Your task to perform on an android device: open a bookmark in the chrome app Image 0: 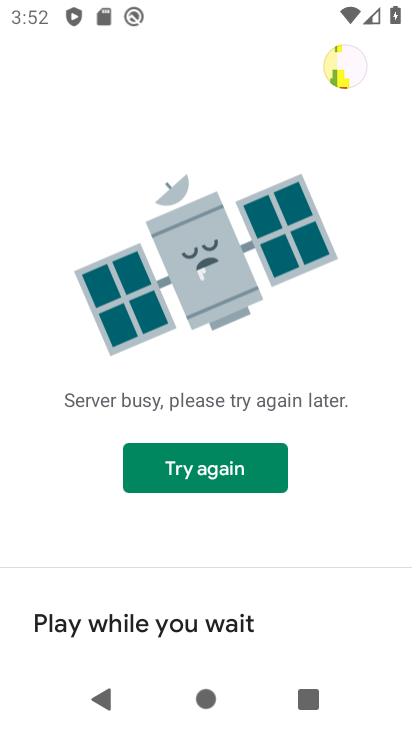
Step 0: press back button
Your task to perform on an android device: open a bookmark in the chrome app Image 1: 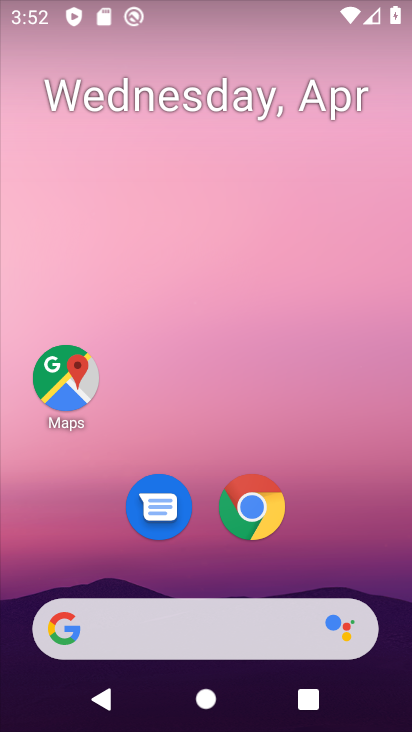
Step 1: click (263, 536)
Your task to perform on an android device: open a bookmark in the chrome app Image 2: 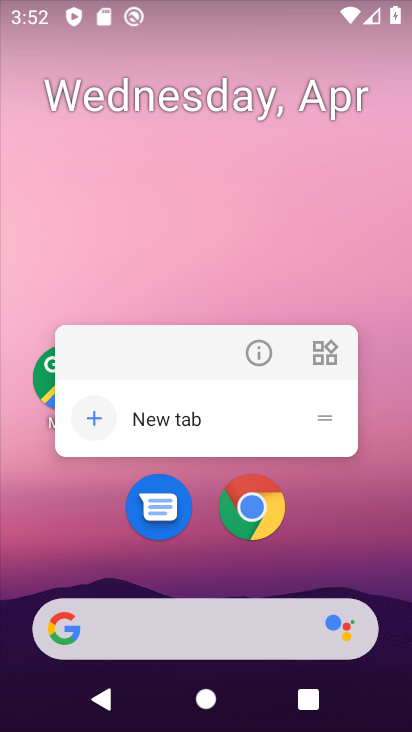
Step 2: click (268, 498)
Your task to perform on an android device: open a bookmark in the chrome app Image 3: 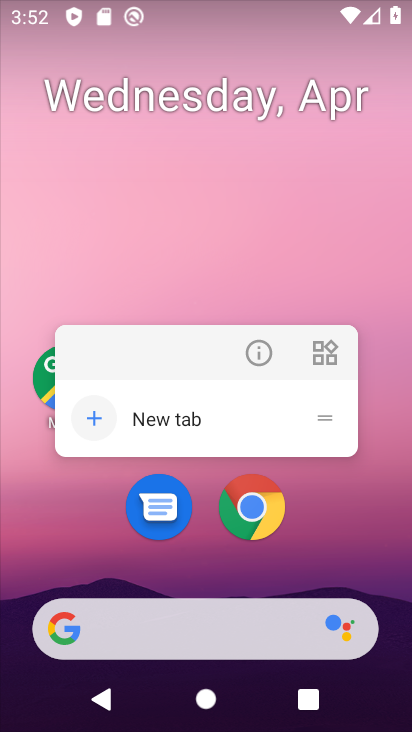
Step 3: click (251, 511)
Your task to perform on an android device: open a bookmark in the chrome app Image 4: 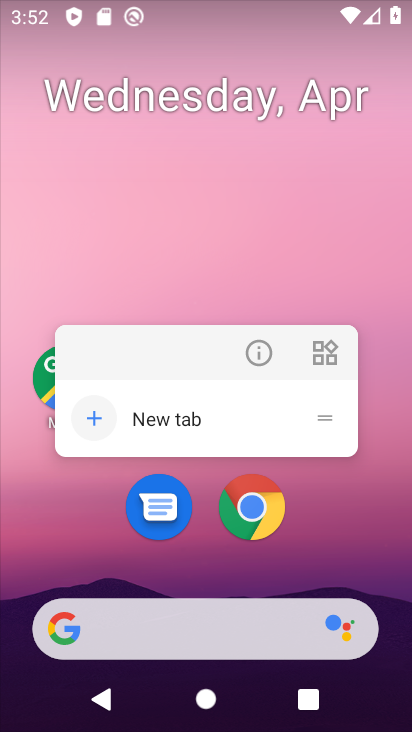
Step 4: click (252, 510)
Your task to perform on an android device: open a bookmark in the chrome app Image 5: 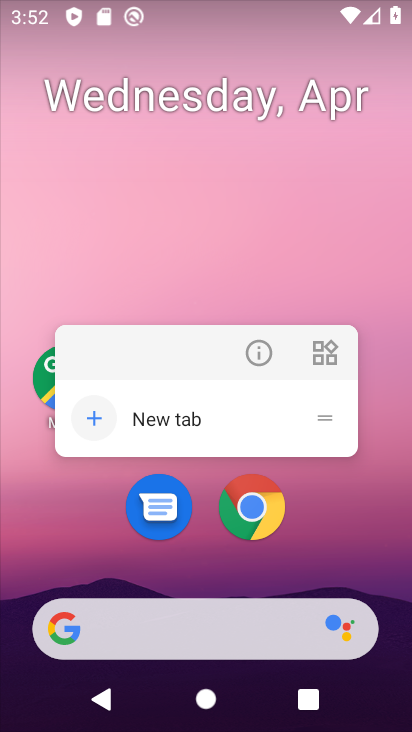
Step 5: click (252, 510)
Your task to perform on an android device: open a bookmark in the chrome app Image 6: 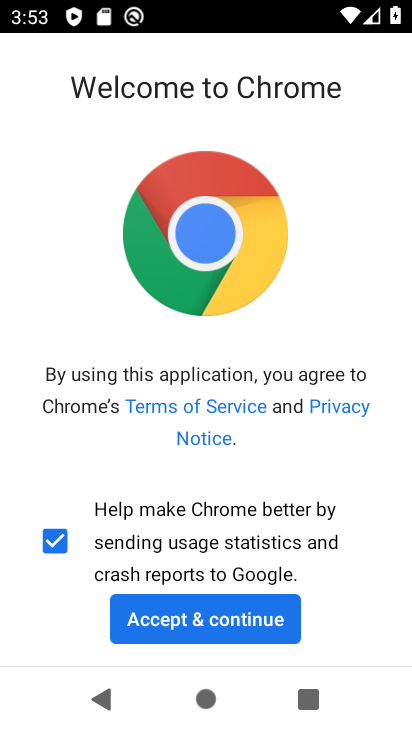
Step 6: click (218, 631)
Your task to perform on an android device: open a bookmark in the chrome app Image 7: 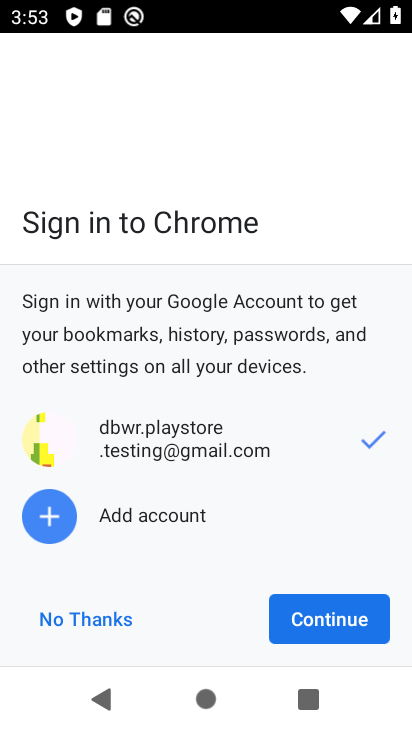
Step 7: click (316, 615)
Your task to perform on an android device: open a bookmark in the chrome app Image 8: 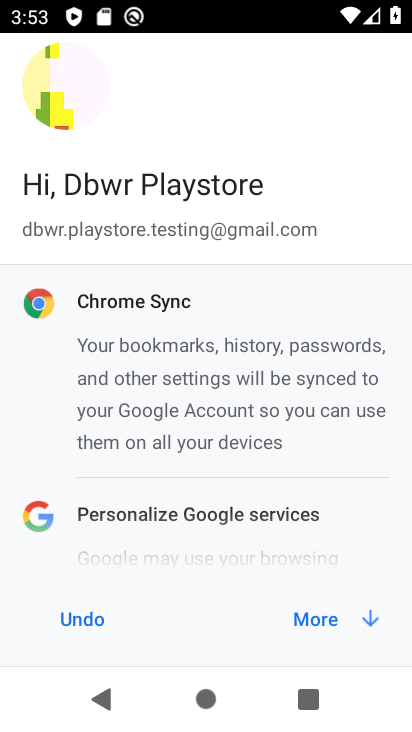
Step 8: click (356, 619)
Your task to perform on an android device: open a bookmark in the chrome app Image 9: 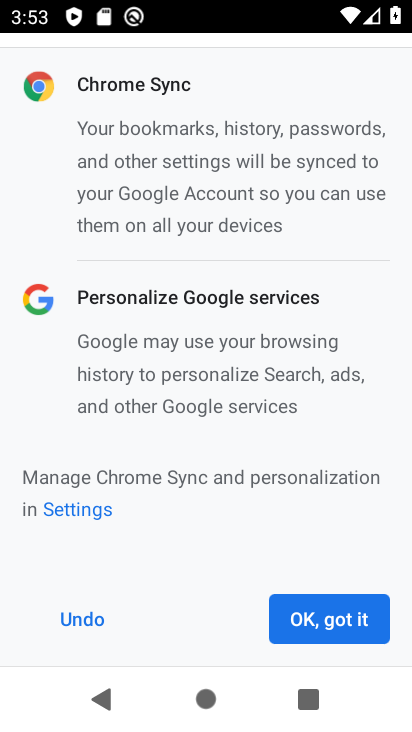
Step 9: click (355, 620)
Your task to perform on an android device: open a bookmark in the chrome app Image 10: 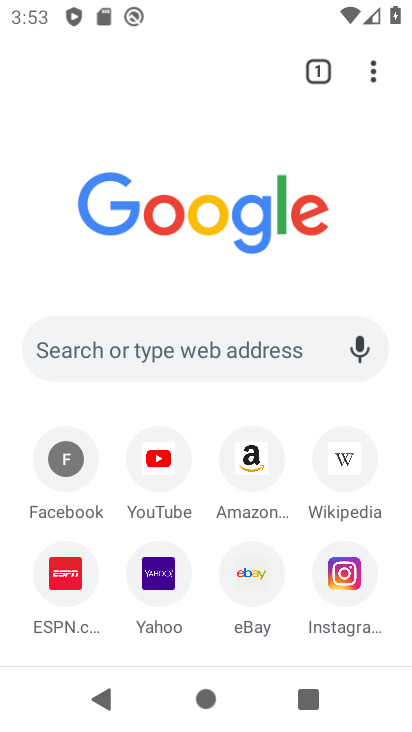
Step 10: task complete